Your task to perform on an android device: open device folders in google photos Image 0: 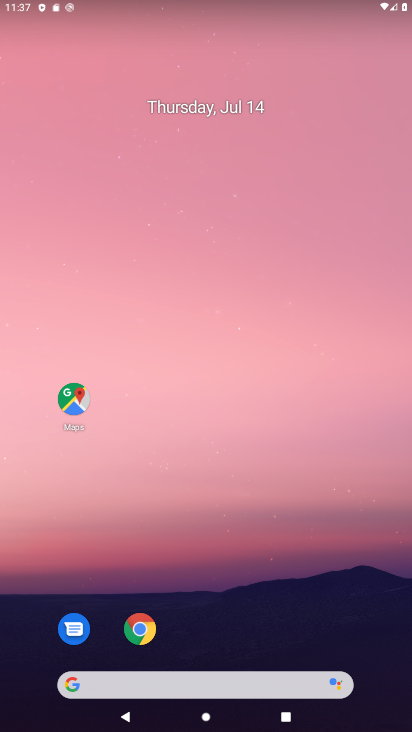
Step 0: drag from (244, 605) to (286, 78)
Your task to perform on an android device: open device folders in google photos Image 1: 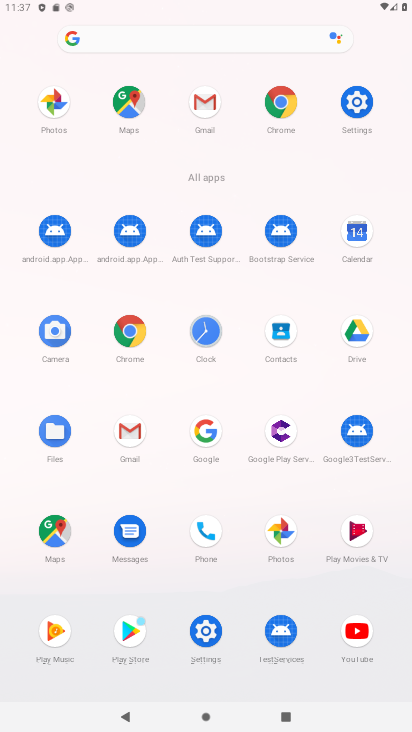
Step 1: click (272, 534)
Your task to perform on an android device: open device folders in google photos Image 2: 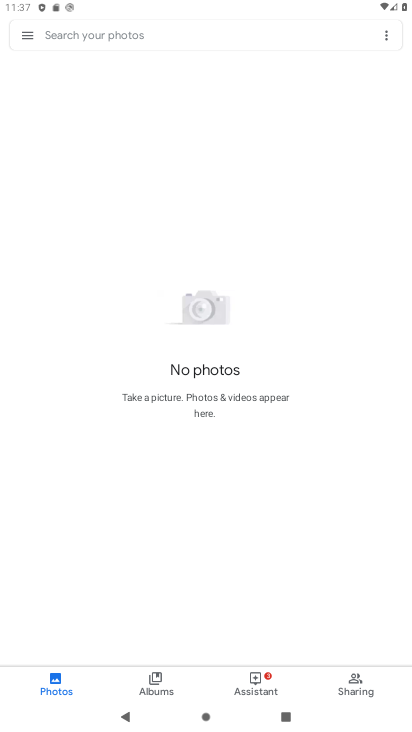
Step 2: click (23, 41)
Your task to perform on an android device: open device folders in google photos Image 3: 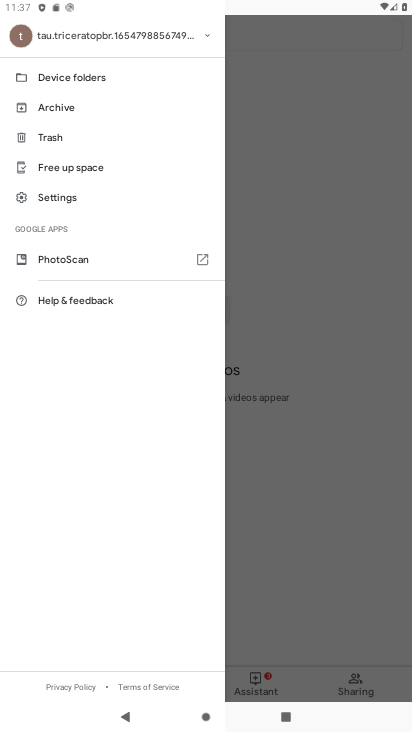
Step 3: click (63, 75)
Your task to perform on an android device: open device folders in google photos Image 4: 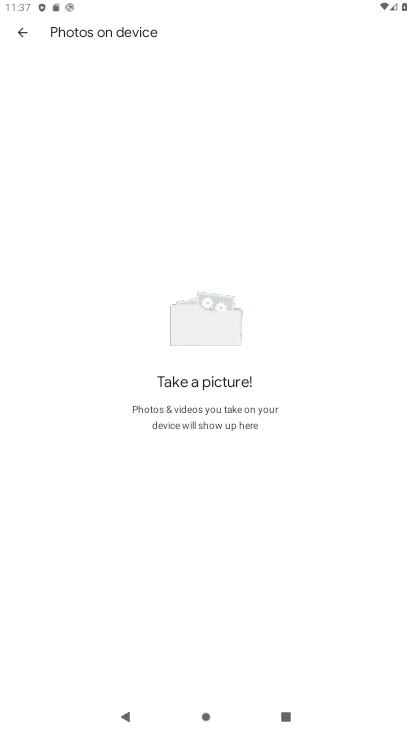
Step 4: task complete